Your task to perform on an android device: Is it going to rain this weekend? Image 0: 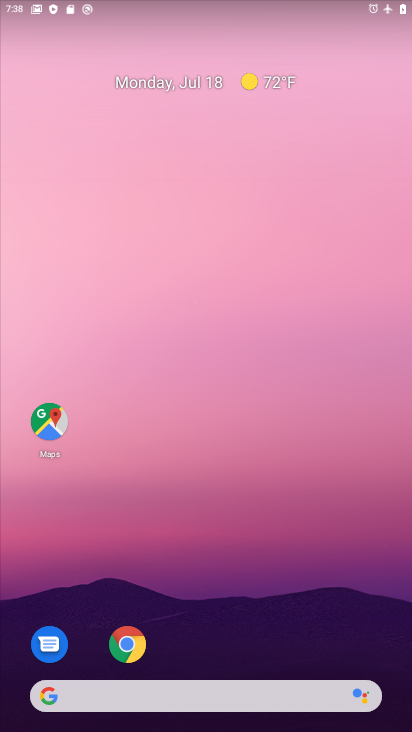
Step 0: drag from (306, 270) to (241, 43)
Your task to perform on an android device: Is it going to rain this weekend? Image 1: 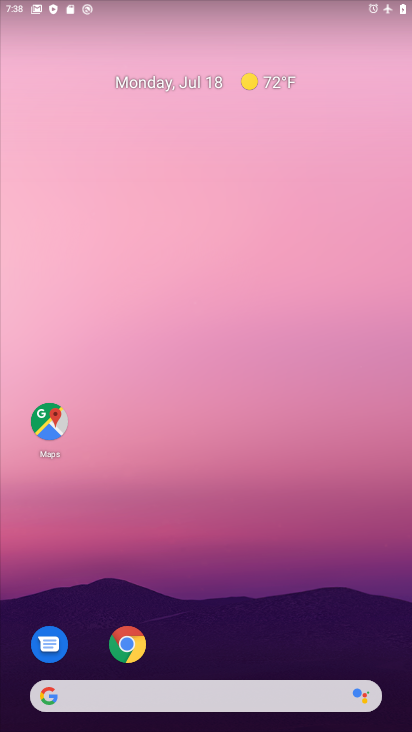
Step 1: drag from (387, 682) to (161, 21)
Your task to perform on an android device: Is it going to rain this weekend? Image 2: 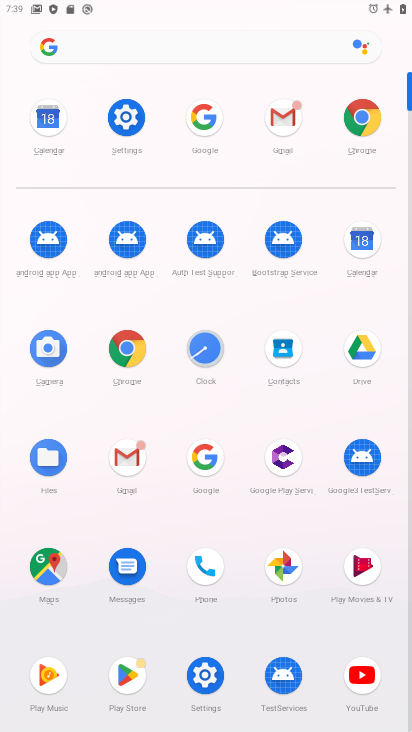
Step 2: click (206, 465)
Your task to perform on an android device: Is it going to rain this weekend? Image 3: 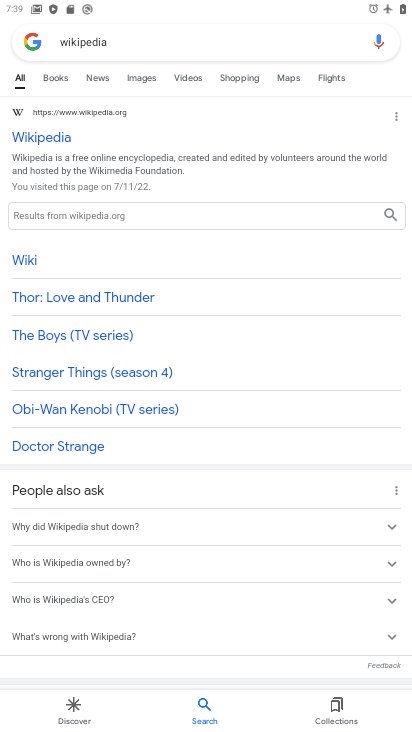
Step 3: press back button
Your task to perform on an android device: Is it going to rain this weekend? Image 4: 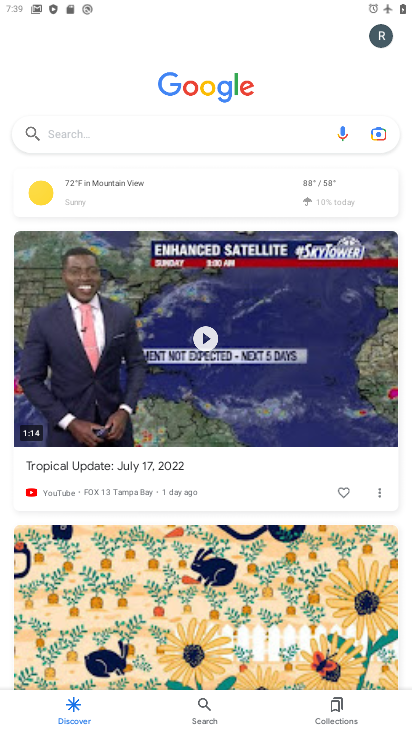
Step 4: click (101, 136)
Your task to perform on an android device: Is it going to rain this weekend? Image 5: 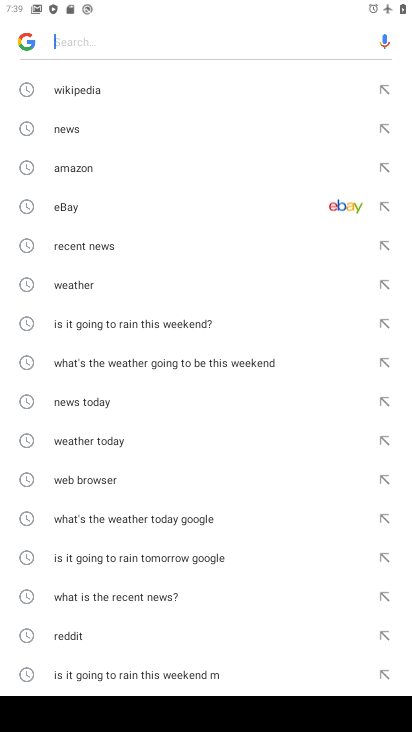
Step 5: click (121, 679)
Your task to perform on an android device: Is it going to rain this weekend? Image 6: 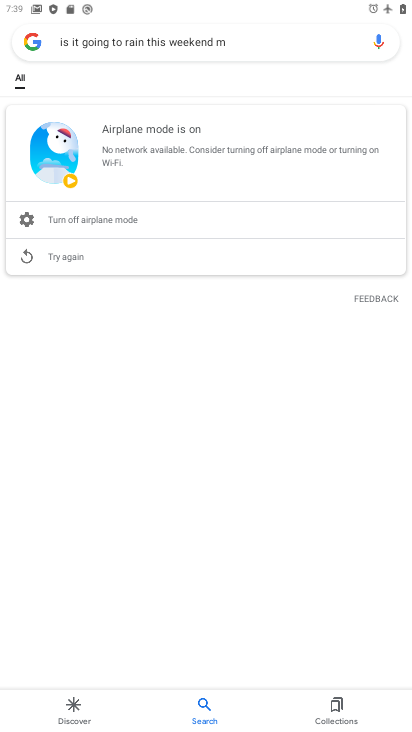
Step 6: task complete